Your task to perform on an android device: Open settings on Google Maps Image 0: 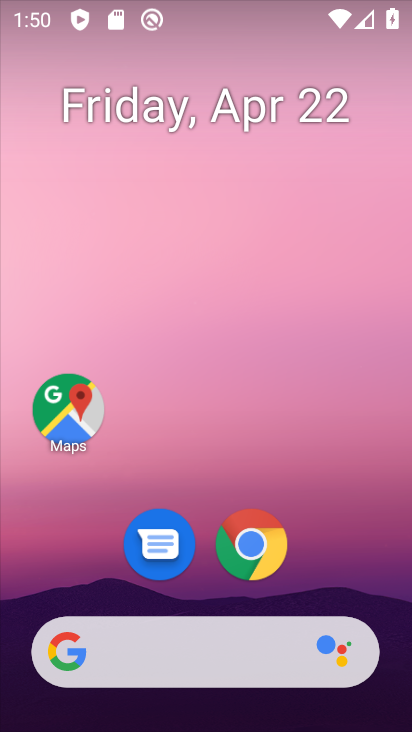
Step 0: click (65, 405)
Your task to perform on an android device: Open settings on Google Maps Image 1: 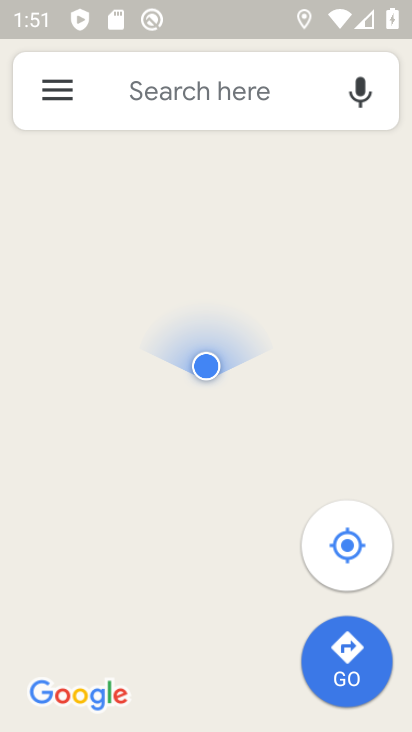
Step 1: click (52, 102)
Your task to perform on an android device: Open settings on Google Maps Image 2: 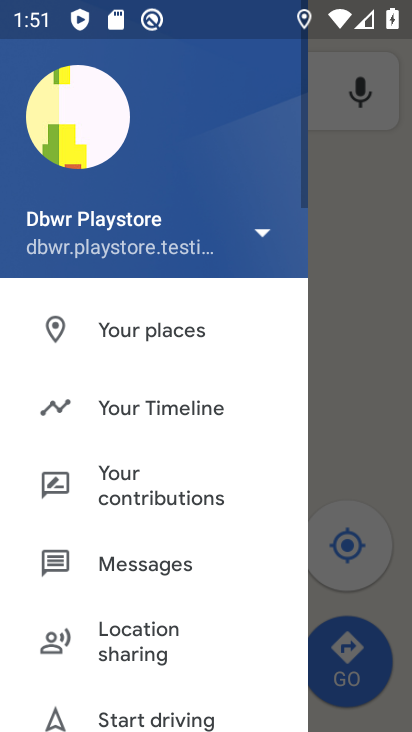
Step 2: drag from (125, 574) to (160, 31)
Your task to perform on an android device: Open settings on Google Maps Image 3: 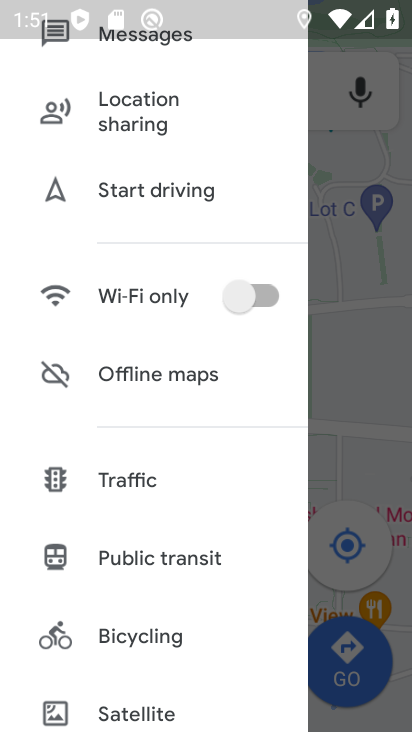
Step 3: drag from (83, 683) to (142, 174)
Your task to perform on an android device: Open settings on Google Maps Image 4: 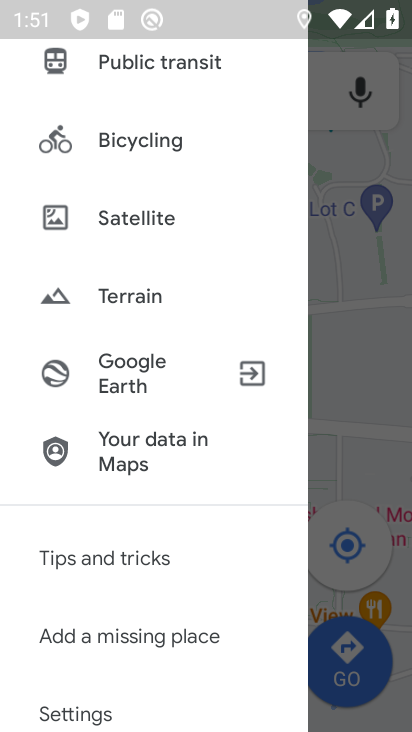
Step 4: click (67, 699)
Your task to perform on an android device: Open settings on Google Maps Image 5: 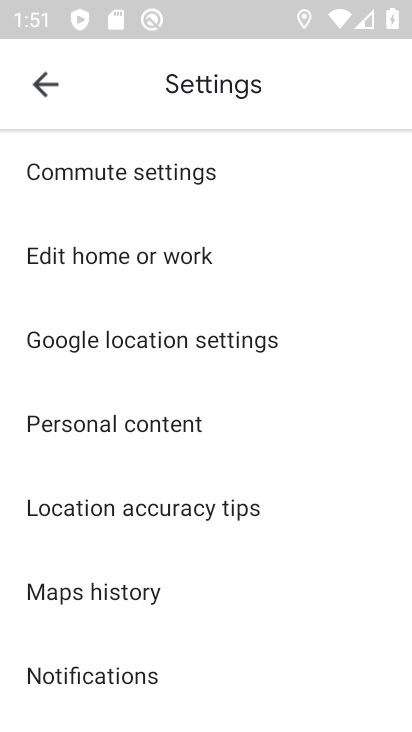
Step 5: task complete